Your task to perform on an android device: Search for lenovo thinkpad on bestbuy.com, select the first entry, and add it to the cart. Image 0: 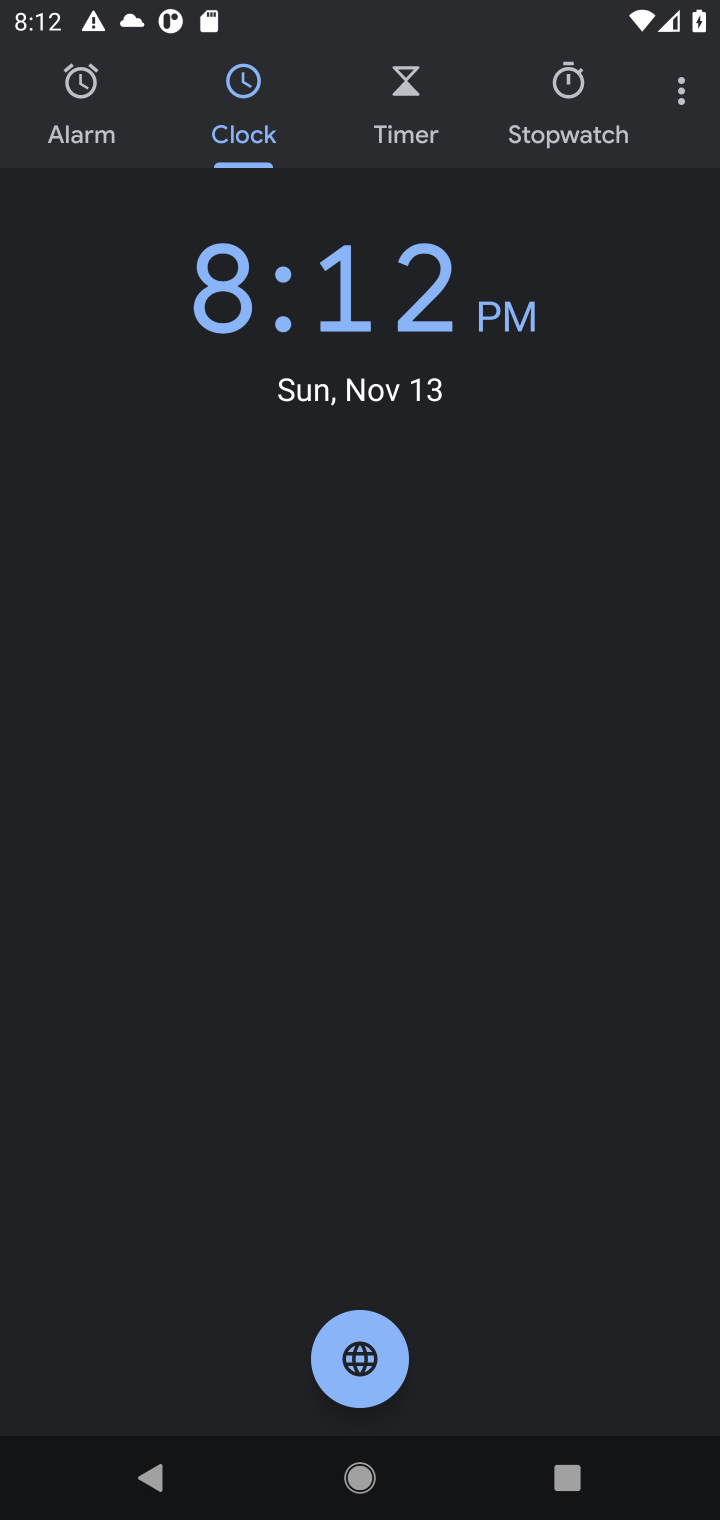
Step 0: press home button
Your task to perform on an android device: Search for lenovo thinkpad on bestbuy.com, select the first entry, and add it to the cart. Image 1: 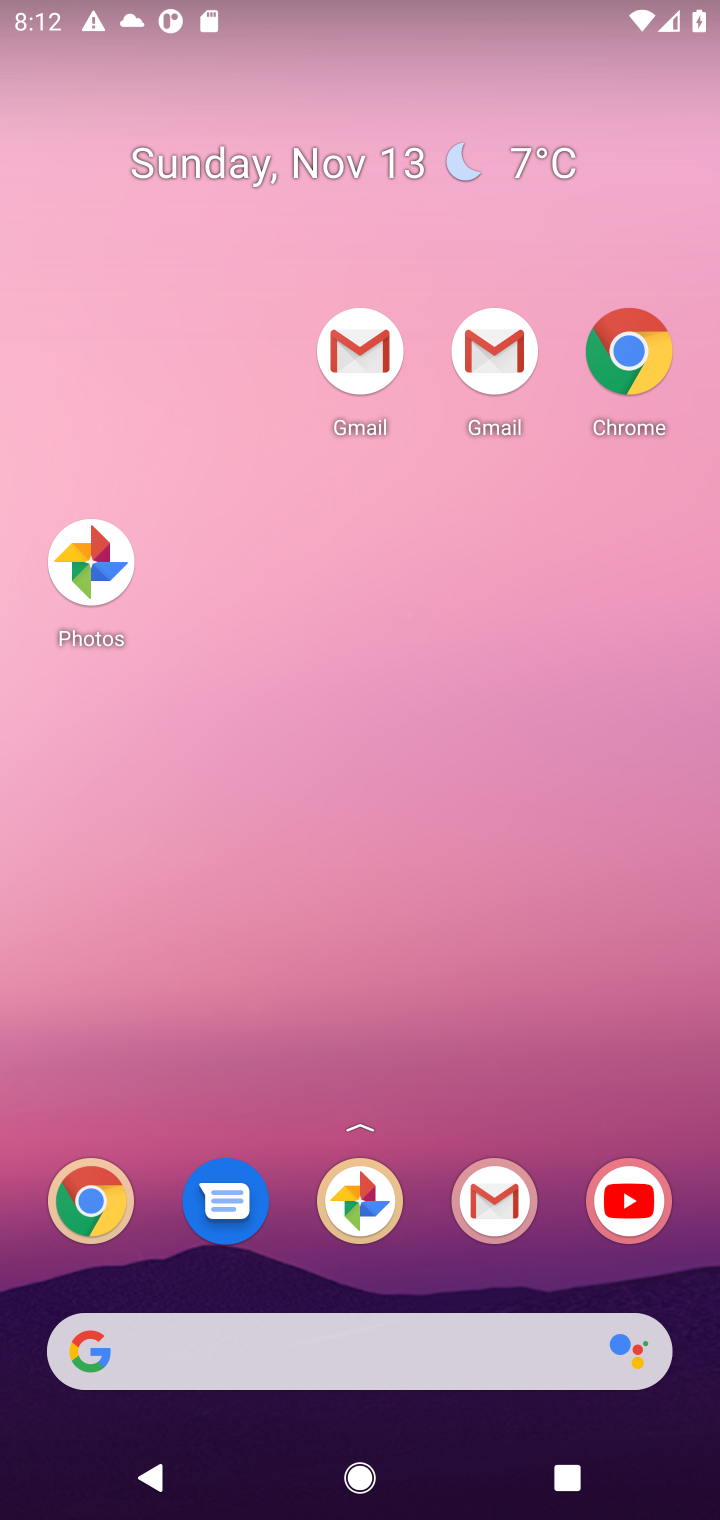
Step 1: drag from (439, 1055) to (516, 145)
Your task to perform on an android device: Search for lenovo thinkpad on bestbuy.com, select the first entry, and add it to the cart. Image 2: 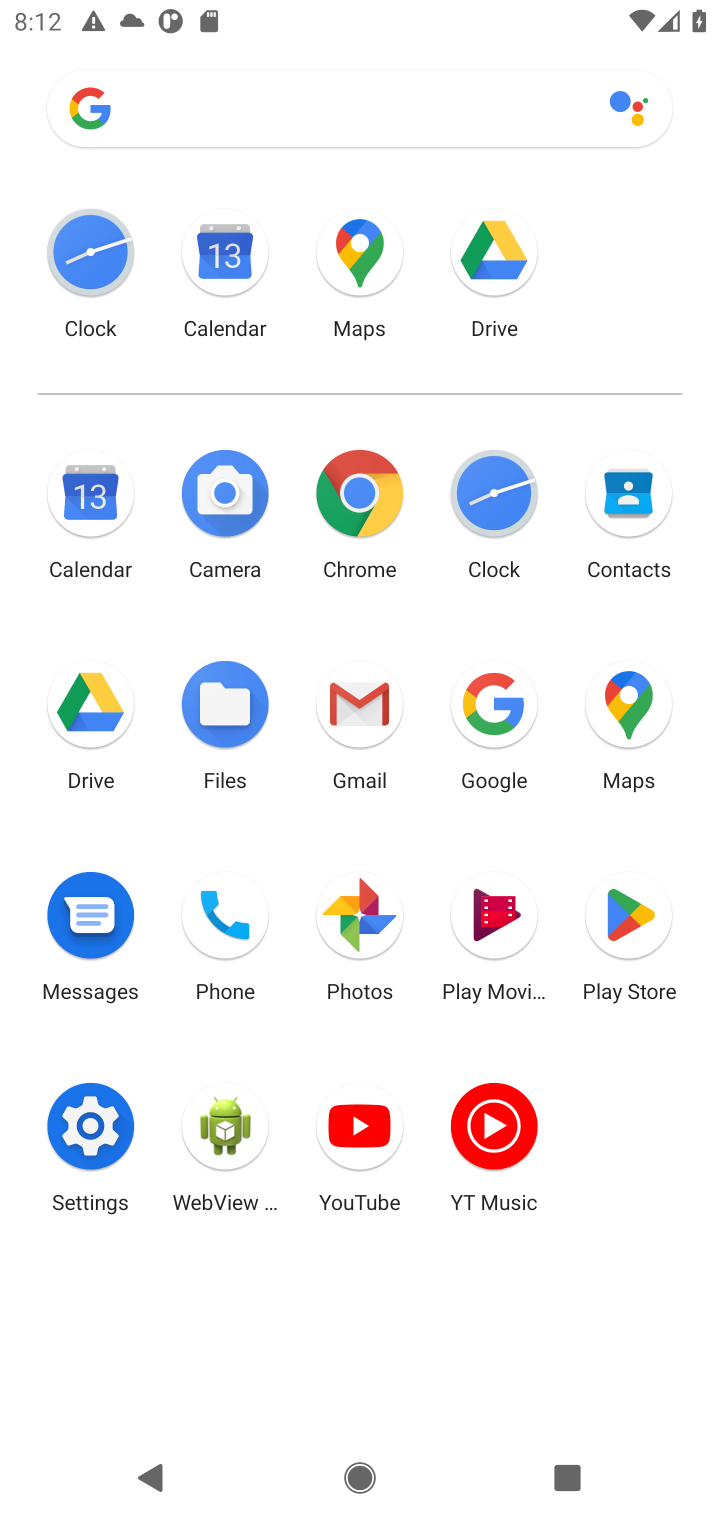
Step 2: click (362, 486)
Your task to perform on an android device: Search for lenovo thinkpad on bestbuy.com, select the first entry, and add it to the cart. Image 3: 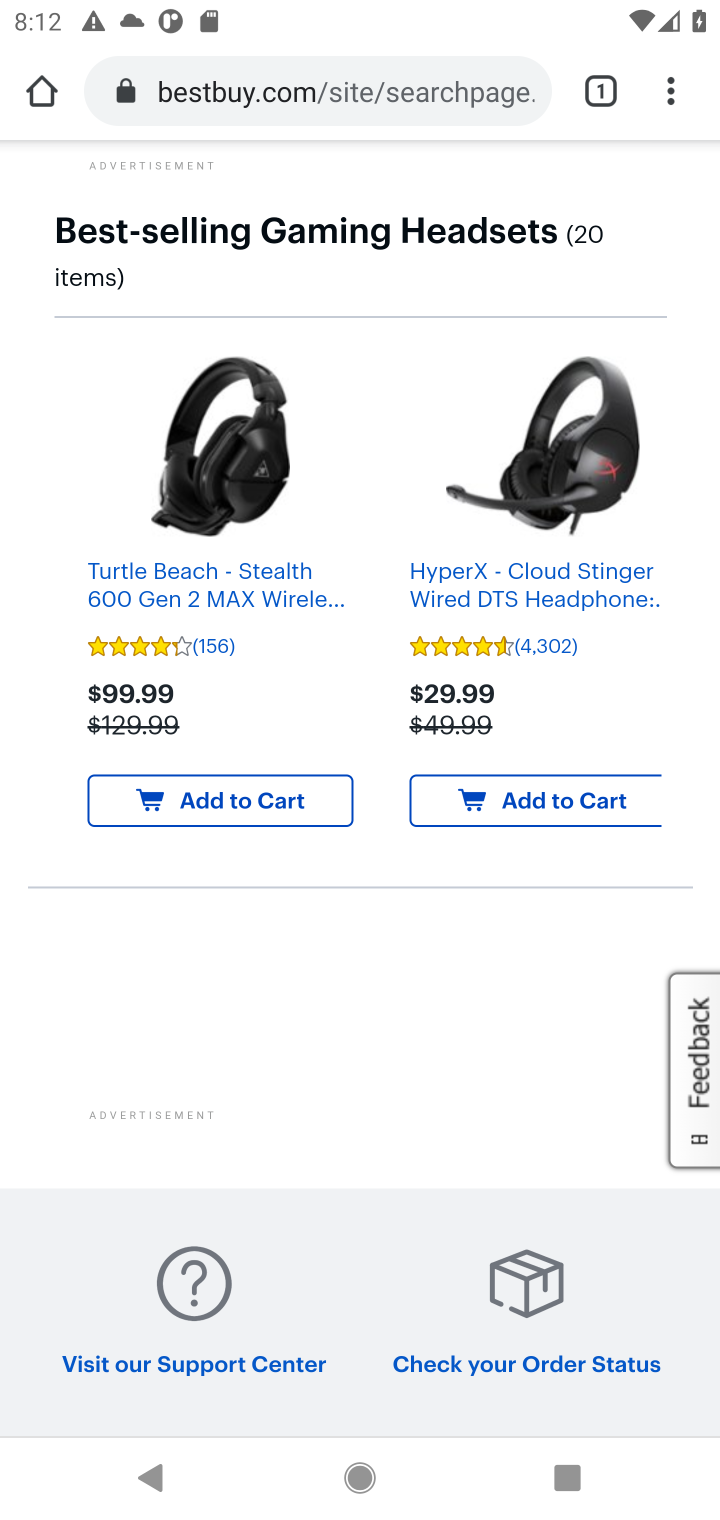
Step 3: click (232, 89)
Your task to perform on an android device: Search for lenovo thinkpad on bestbuy.com, select the first entry, and add it to the cart. Image 4: 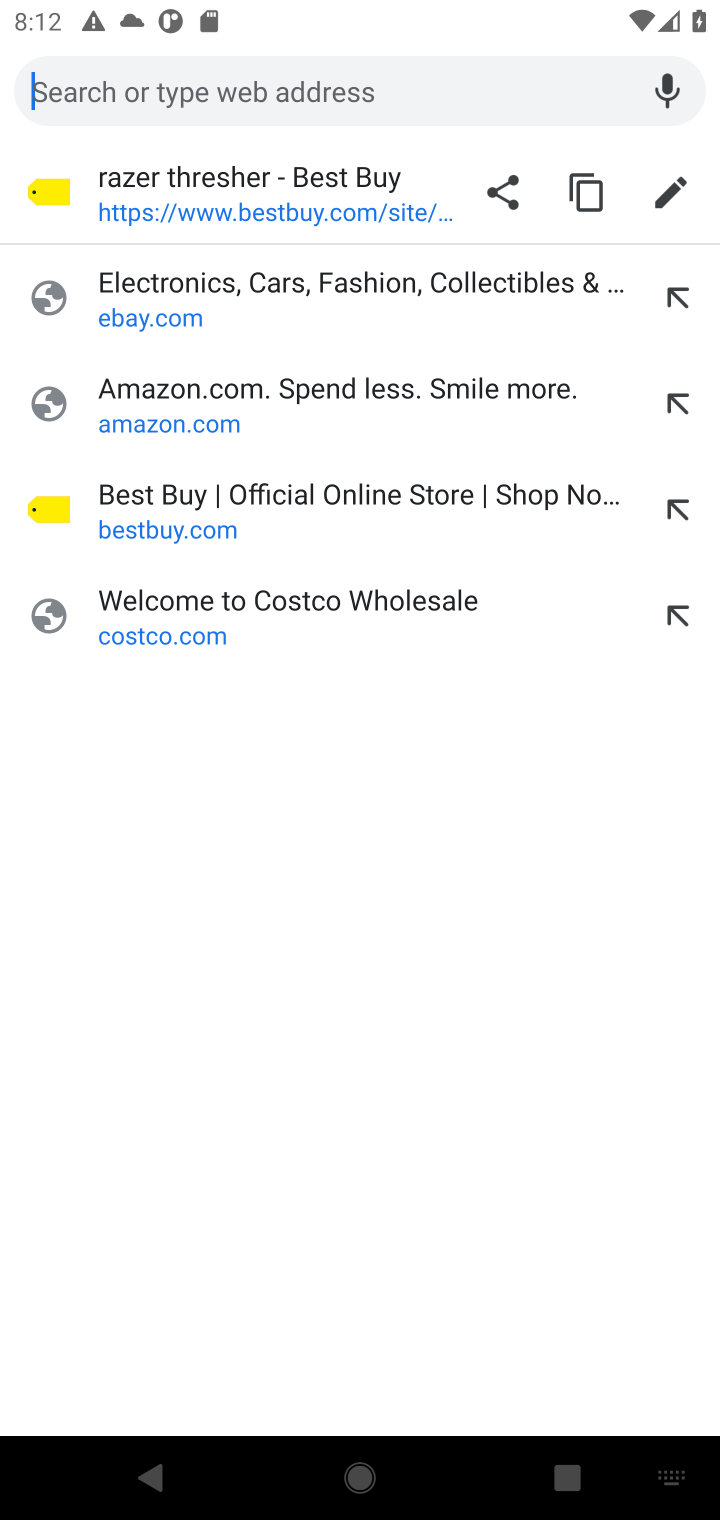
Step 4: type "bestbuy.com"
Your task to perform on an android device: Search for lenovo thinkpad on bestbuy.com, select the first entry, and add it to the cart. Image 5: 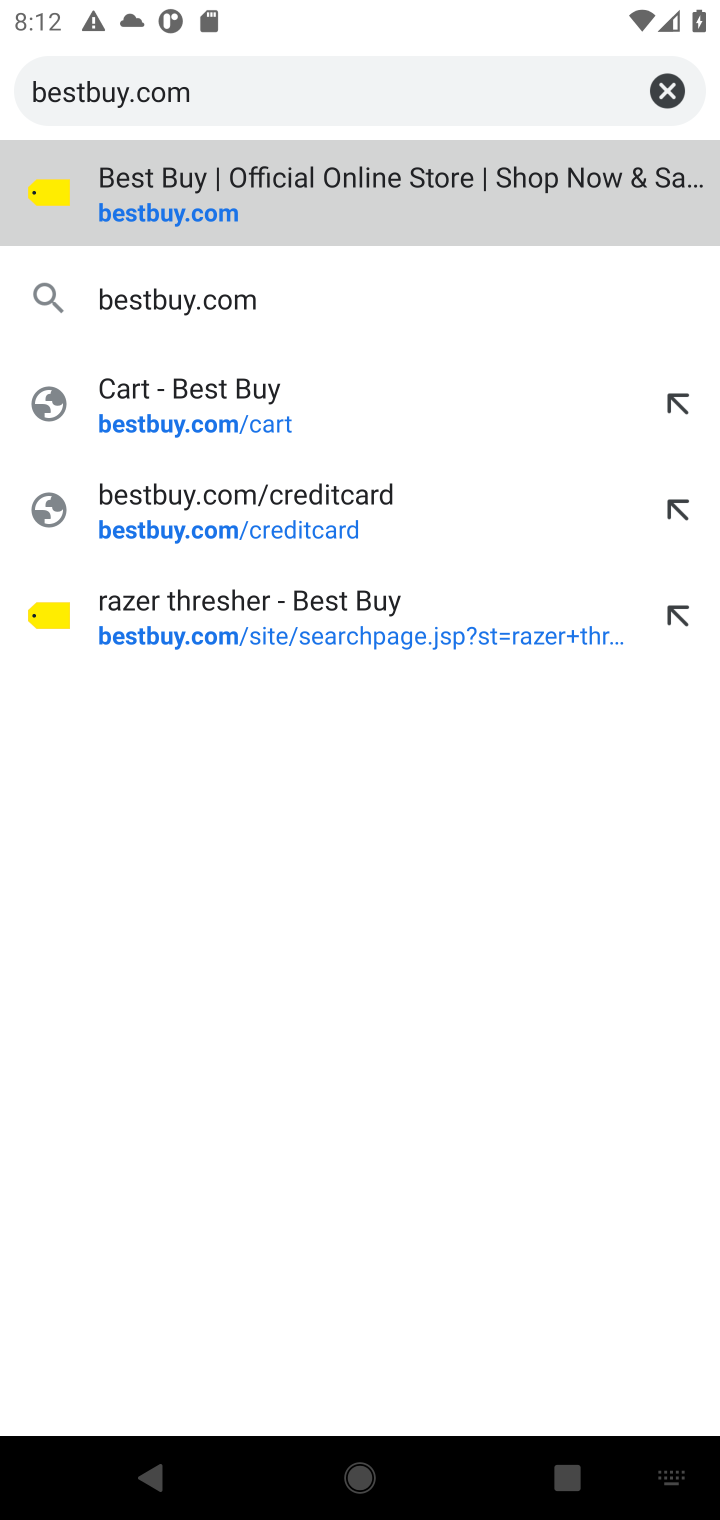
Step 5: press enter
Your task to perform on an android device: Search for lenovo thinkpad on bestbuy.com, select the first entry, and add it to the cart. Image 6: 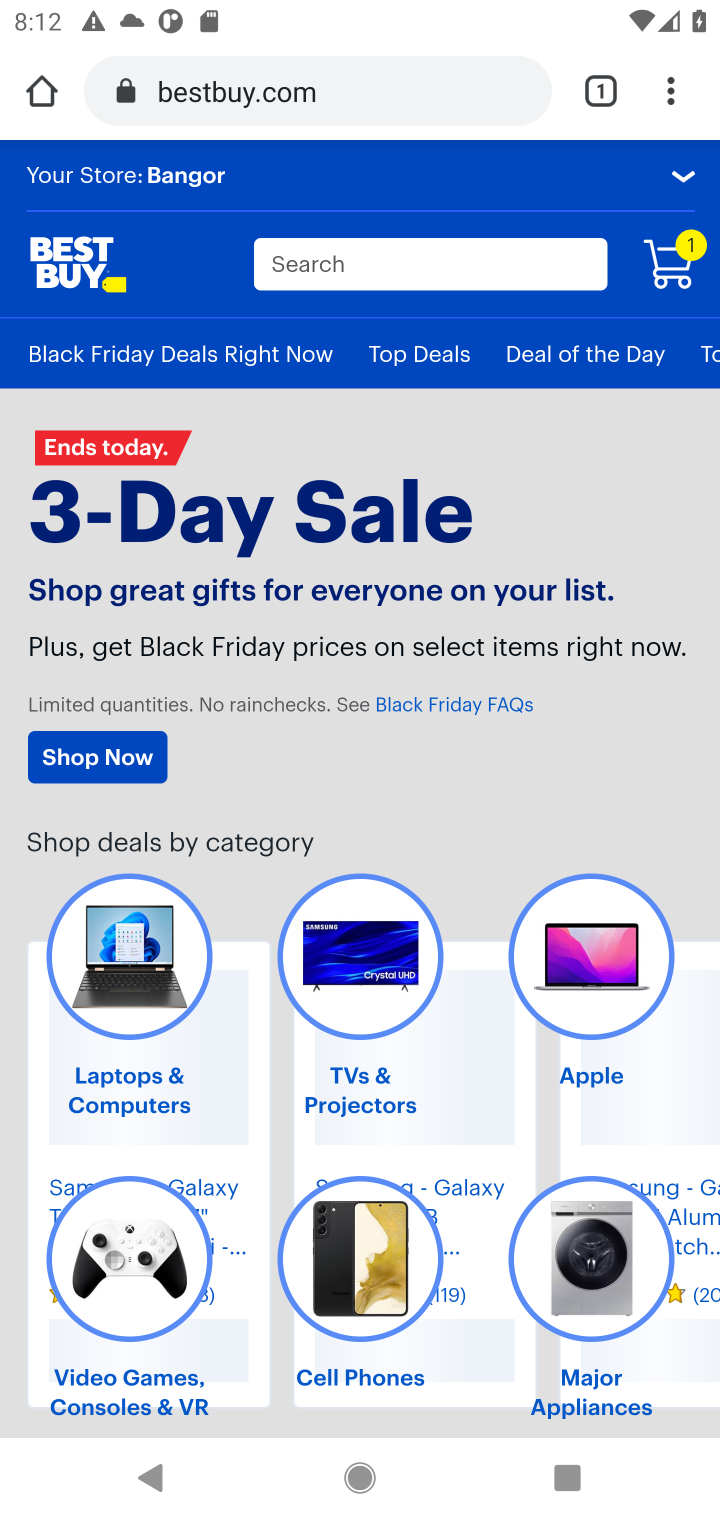
Step 6: click (335, 257)
Your task to perform on an android device: Search for lenovo thinkpad on bestbuy.com, select the first entry, and add it to the cart. Image 7: 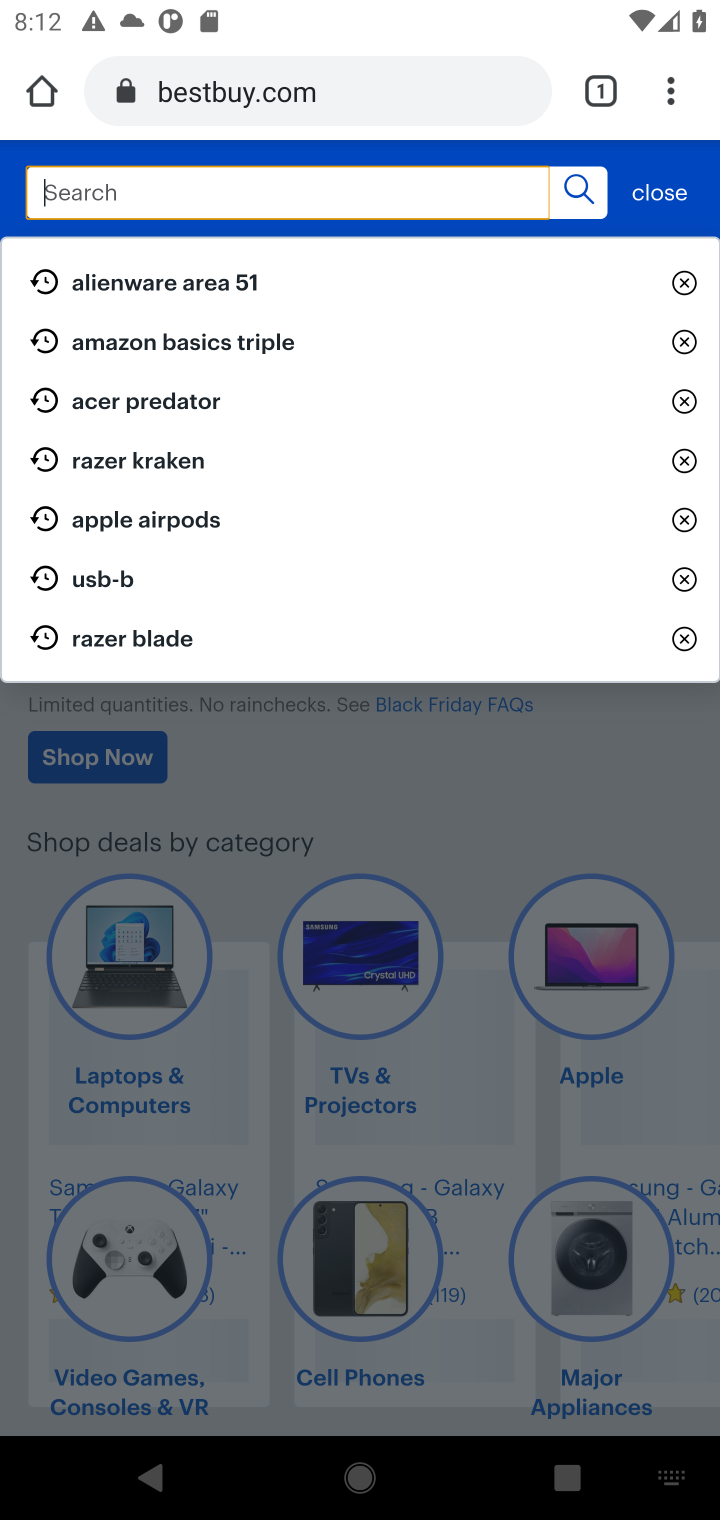
Step 7: type "lenovo thinkpad"
Your task to perform on an android device: Search for lenovo thinkpad on bestbuy.com, select the first entry, and add it to the cart. Image 8: 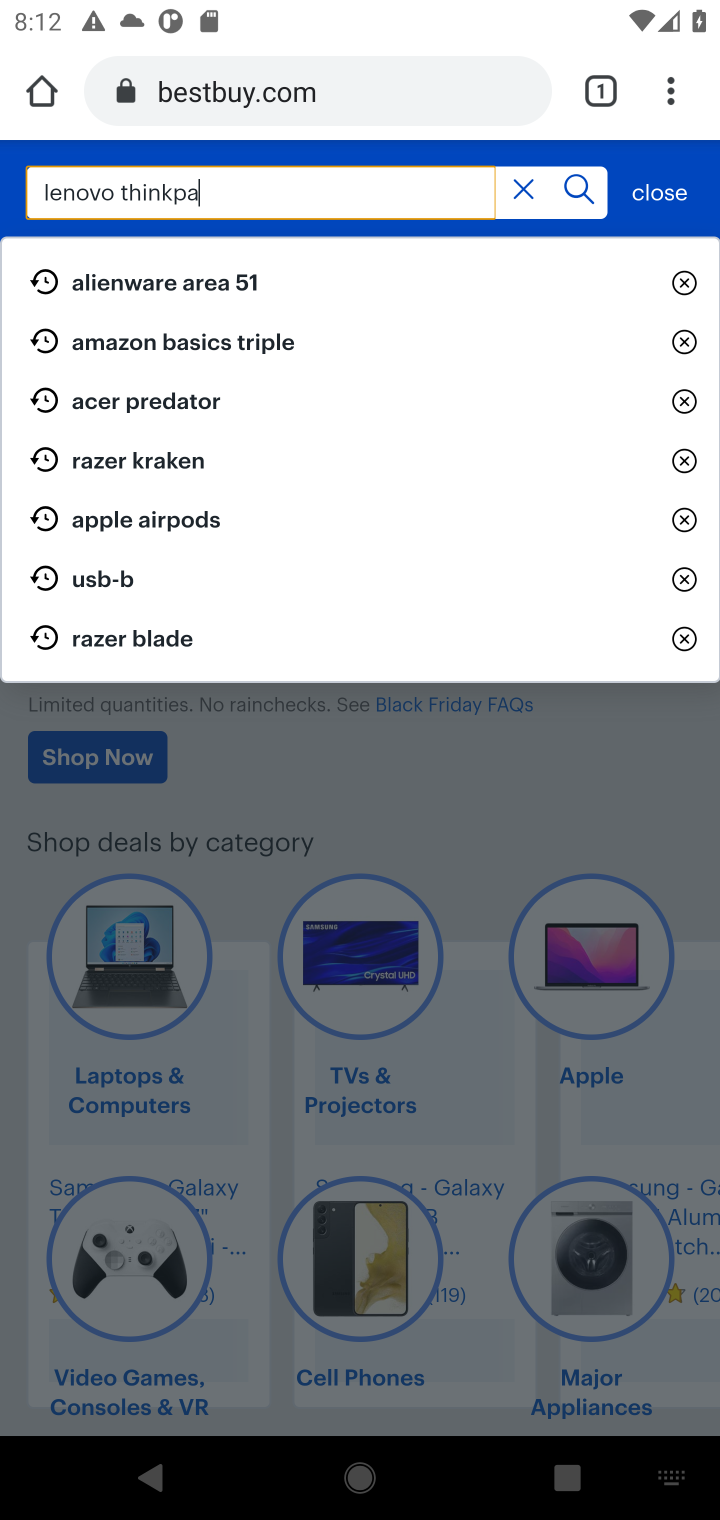
Step 8: press enter
Your task to perform on an android device: Search for lenovo thinkpad on bestbuy.com, select the first entry, and add it to the cart. Image 9: 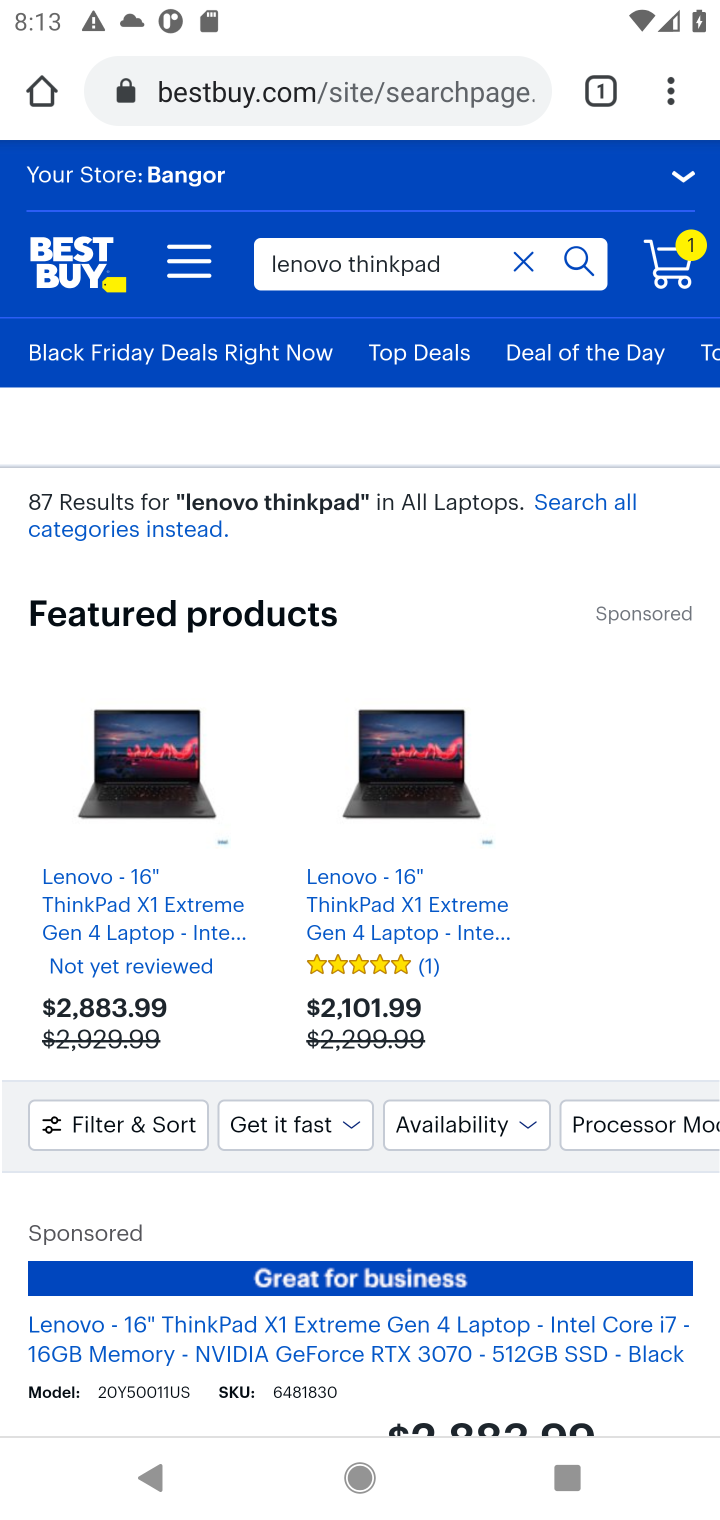
Step 9: drag from (502, 1217) to (698, 129)
Your task to perform on an android device: Search for lenovo thinkpad on bestbuy.com, select the first entry, and add it to the cart. Image 10: 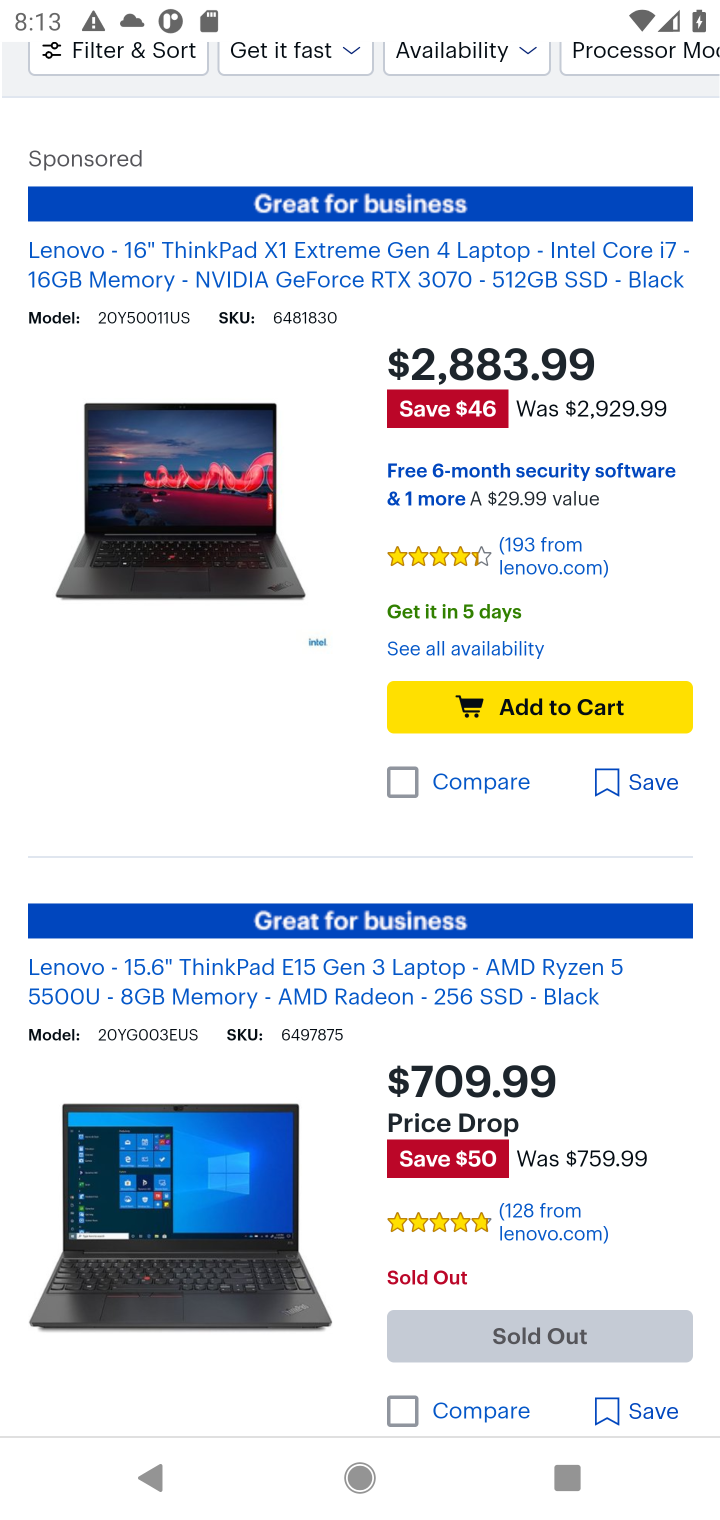
Step 10: drag from (527, 1322) to (538, 1398)
Your task to perform on an android device: Search for lenovo thinkpad on bestbuy.com, select the first entry, and add it to the cart. Image 11: 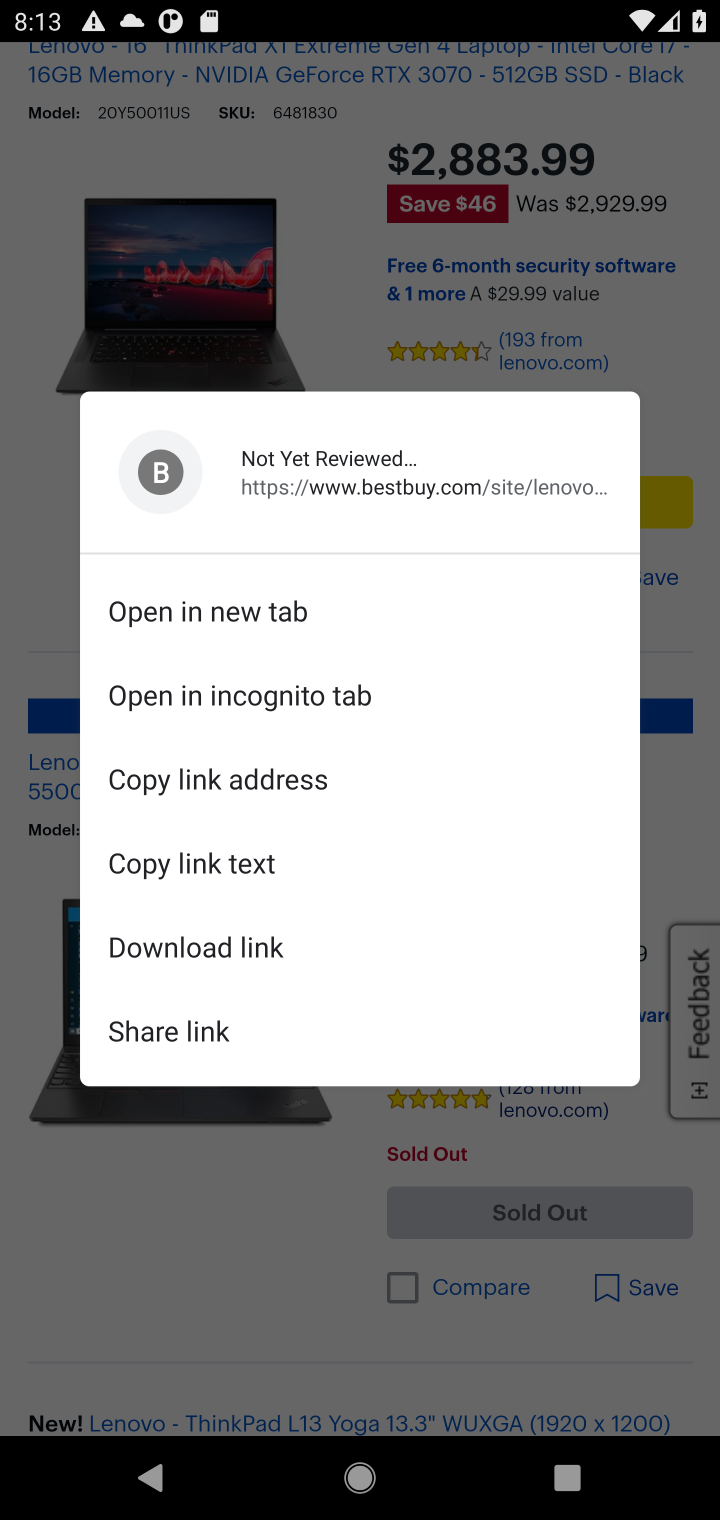
Step 11: click (454, 188)
Your task to perform on an android device: Search for lenovo thinkpad on bestbuy.com, select the first entry, and add it to the cart. Image 12: 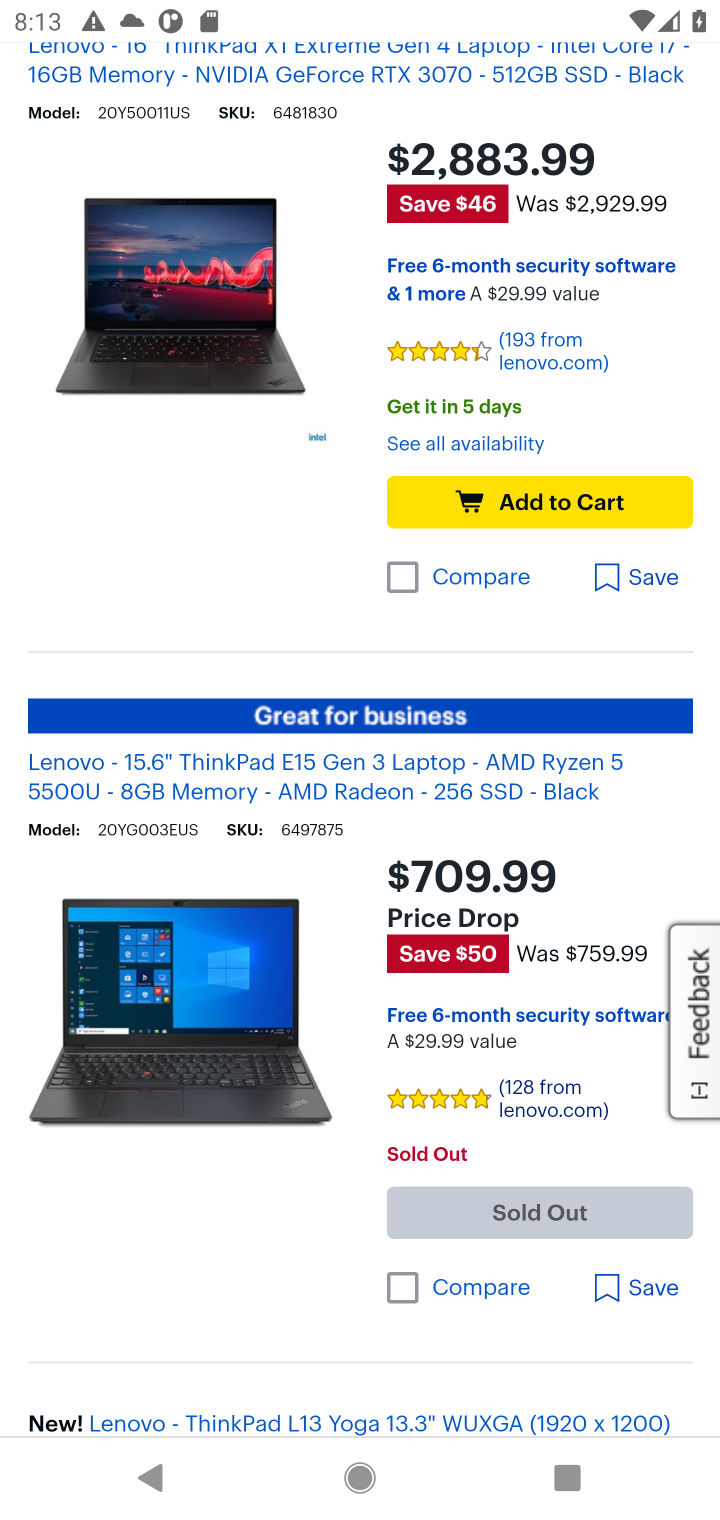
Step 12: drag from (508, 355) to (468, 1331)
Your task to perform on an android device: Search for lenovo thinkpad on bestbuy.com, select the first entry, and add it to the cart. Image 13: 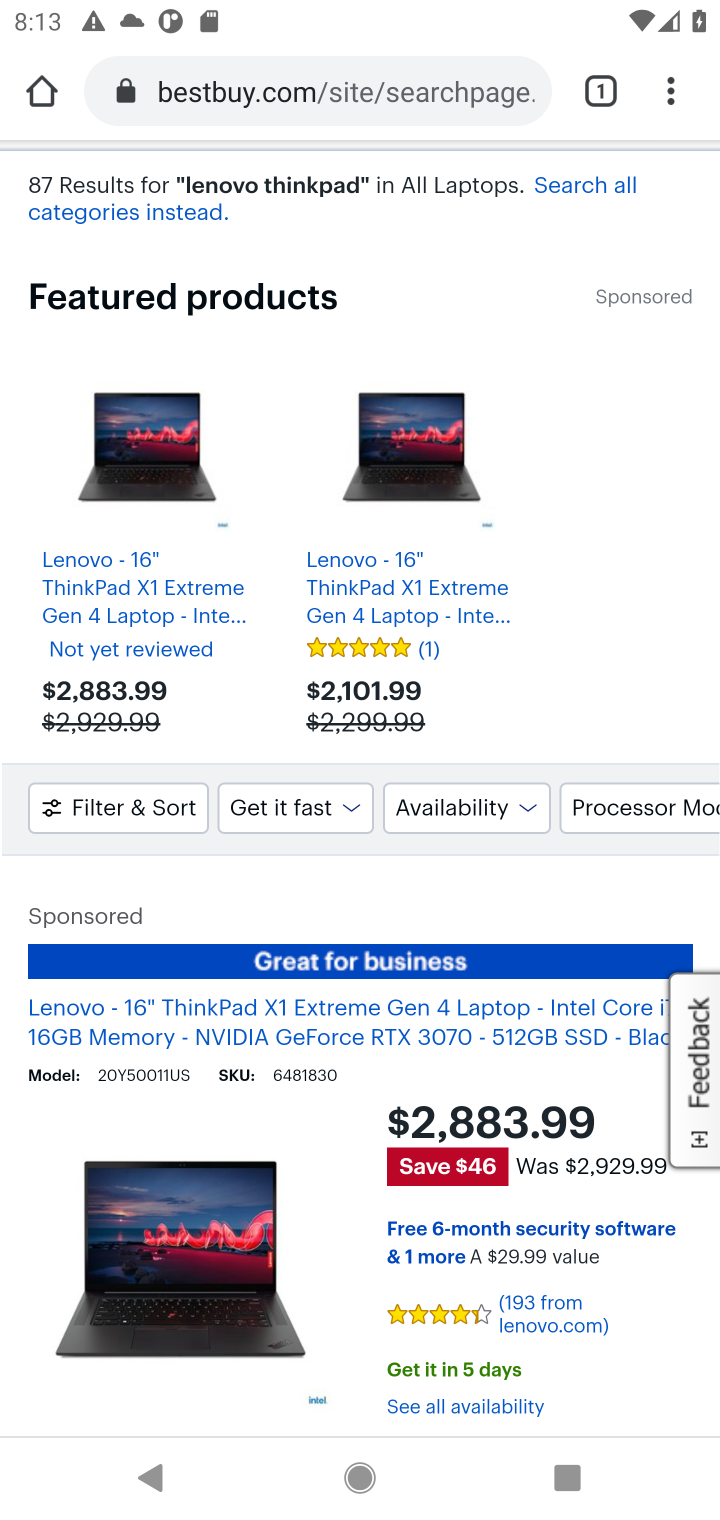
Step 13: drag from (480, 1288) to (570, 494)
Your task to perform on an android device: Search for lenovo thinkpad on bestbuy.com, select the first entry, and add it to the cart. Image 14: 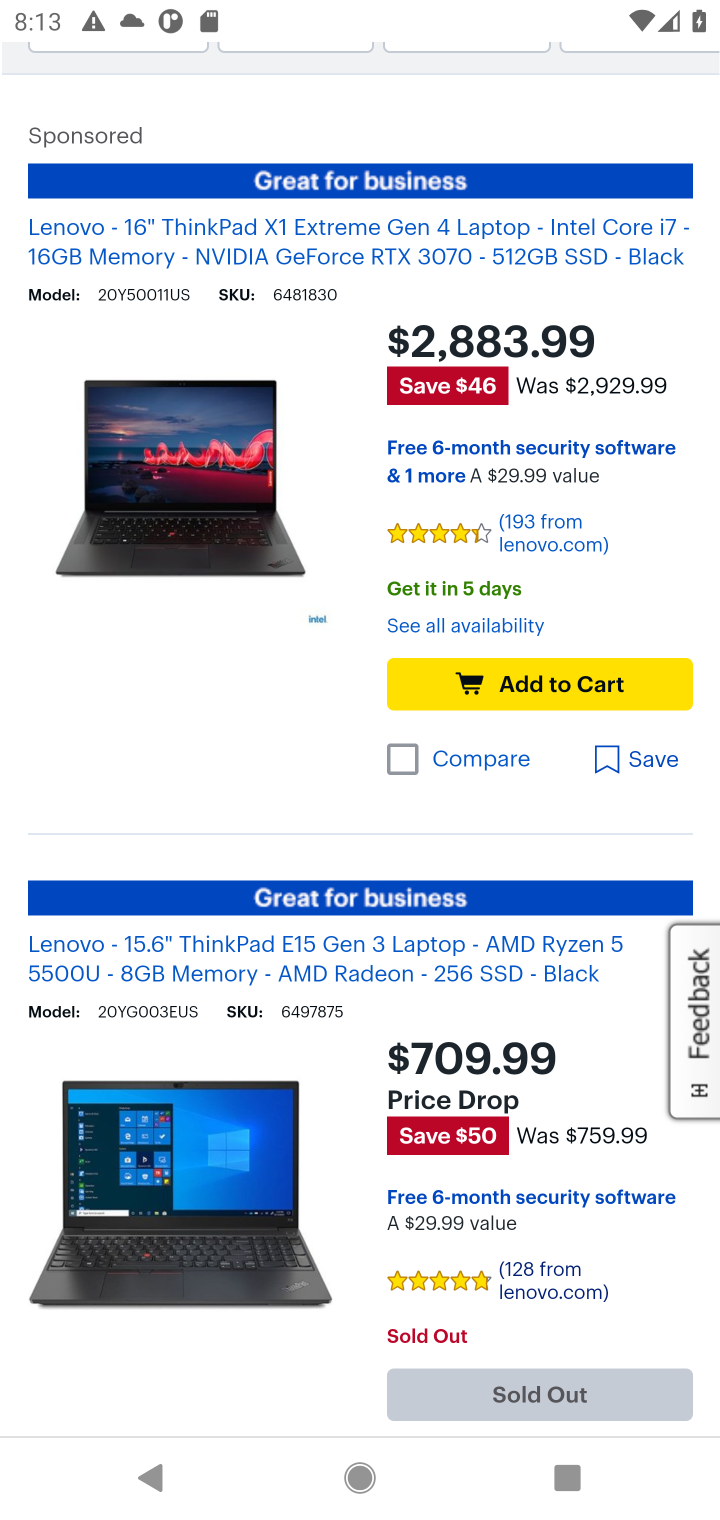
Step 14: drag from (431, 1285) to (430, 141)
Your task to perform on an android device: Search for lenovo thinkpad on bestbuy.com, select the first entry, and add it to the cart. Image 15: 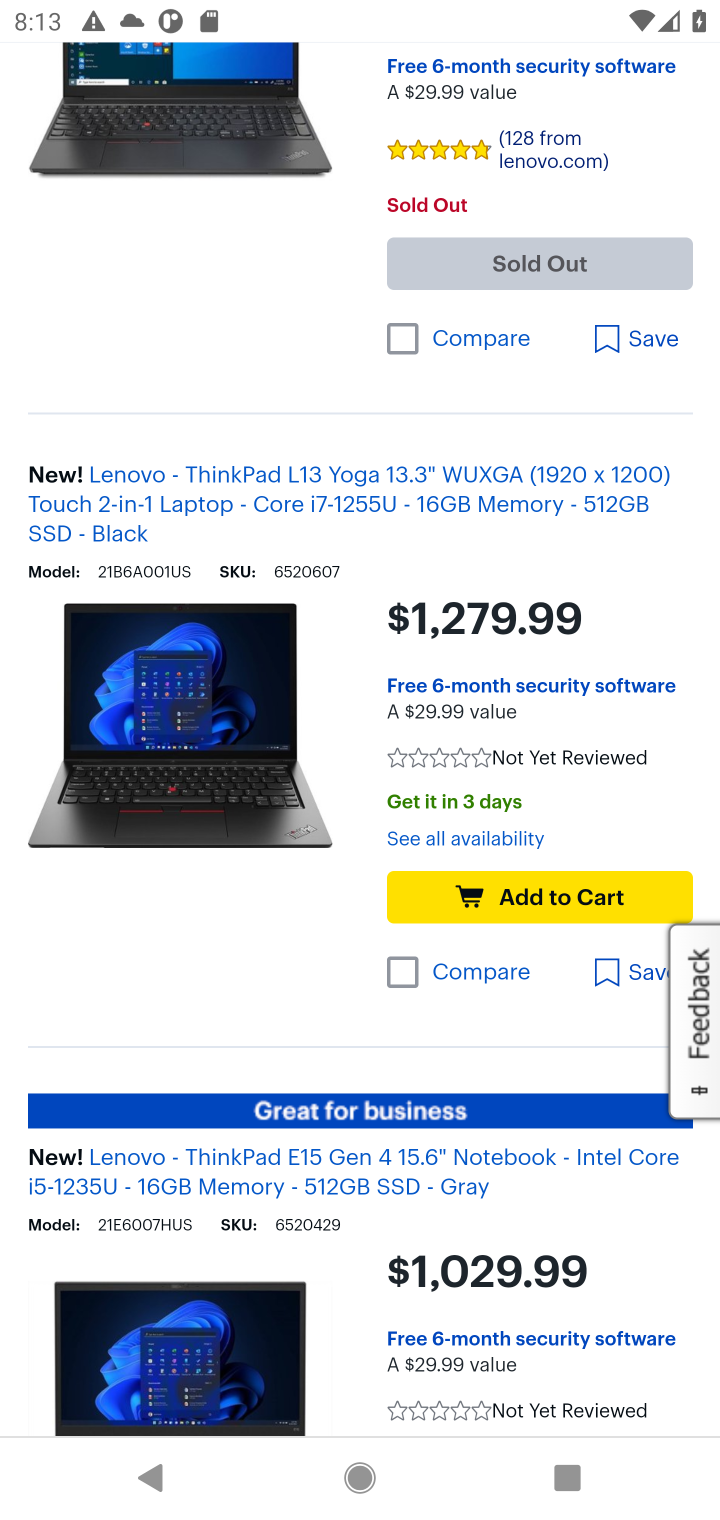
Step 15: drag from (237, 236) to (299, 1143)
Your task to perform on an android device: Search for lenovo thinkpad on bestbuy.com, select the first entry, and add it to the cart. Image 16: 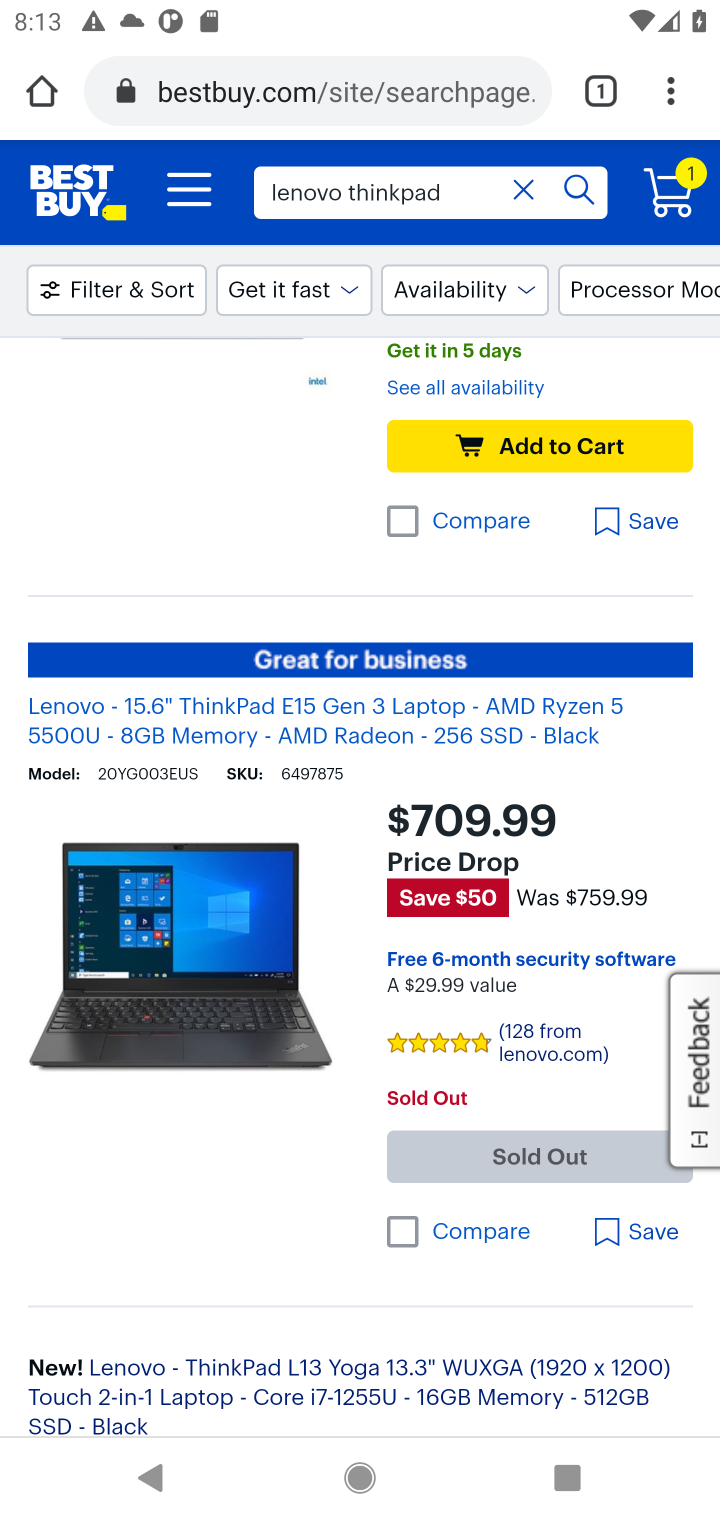
Step 16: drag from (269, 472) to (259, 1121)
Your task to perform on an android device: Search for lenovo thinkpad on bestbuy.com, select the first entry, and add it to the cart. Image 17: 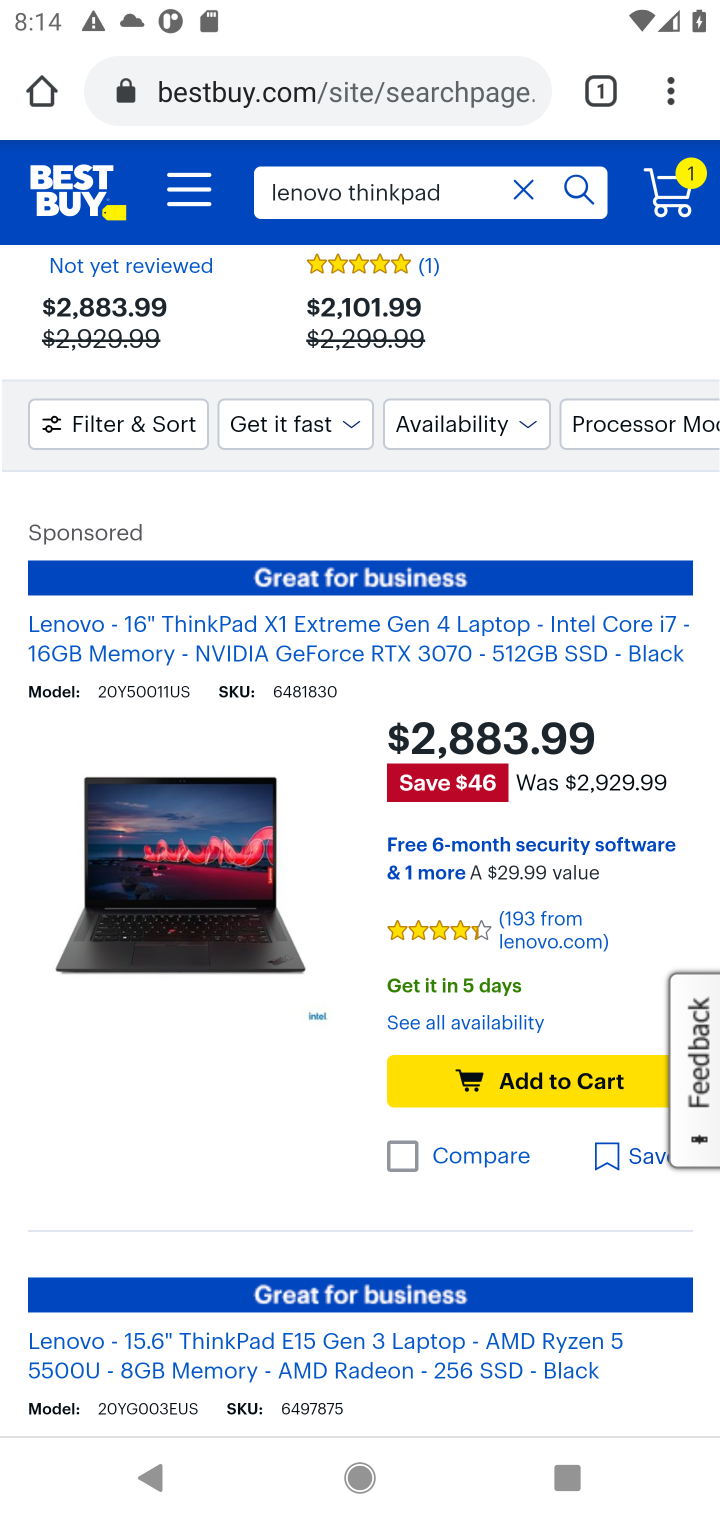
Step 17: click (539, 1072)
Your task to perform on an android device: Search for lenovo thinkpad on bestbuy.com, select the first entry, and add it to the cart. Image 18: 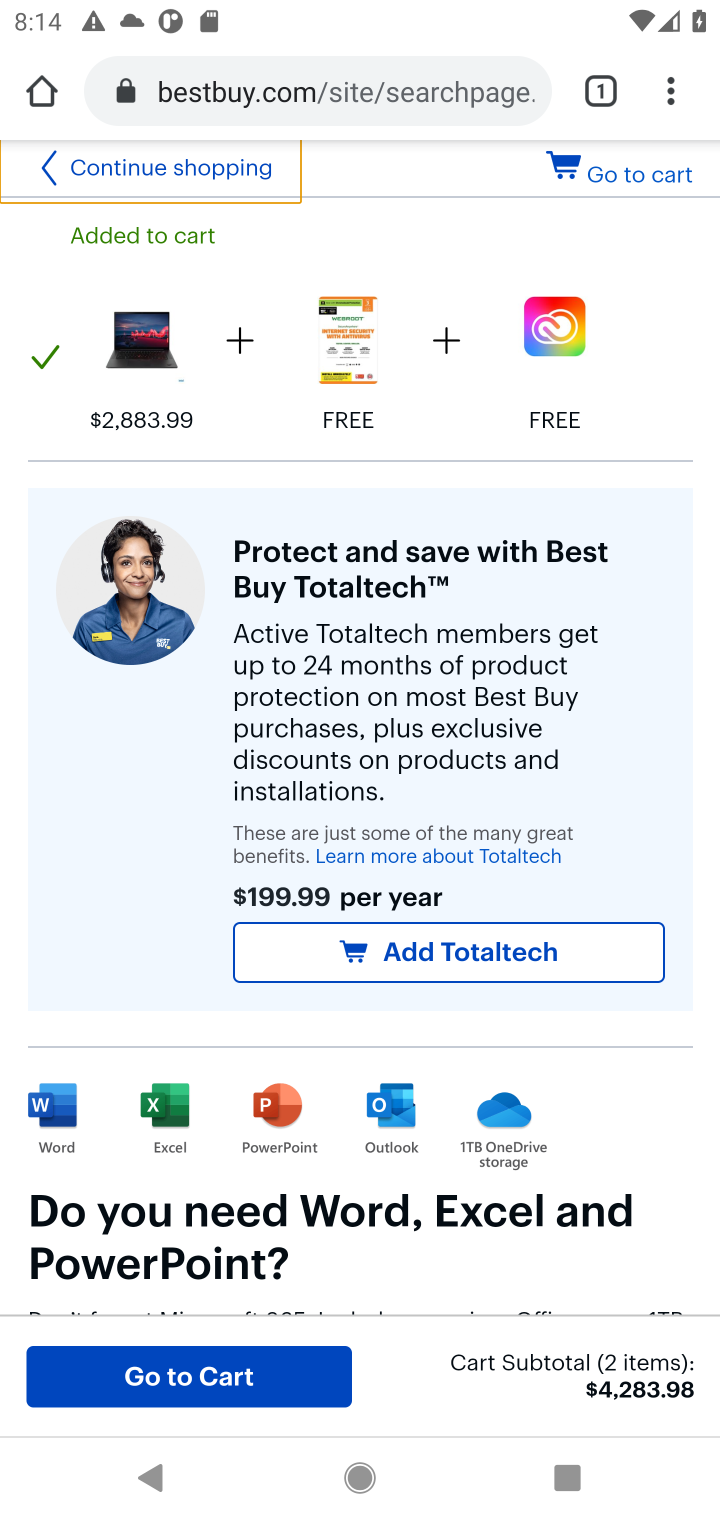
Step 18: task complete